Your task to perform on an android device: Open calendar and show me the first week of next month Image 0: 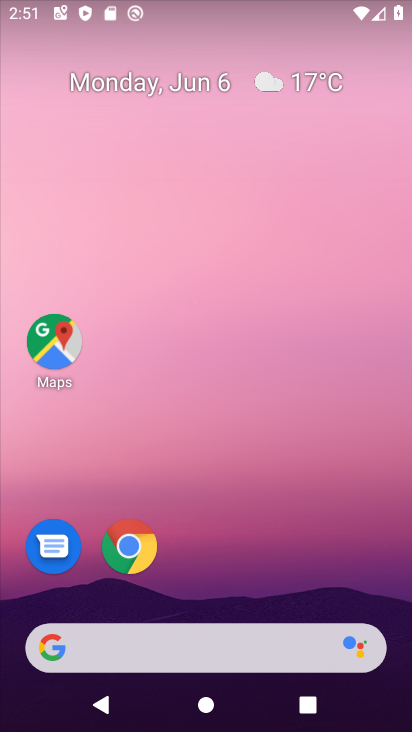
Step 0: drag from (243, 583) to (92, 205)
Your task to perform on an android device: Open calendar and show me the first week of next month Image 1: 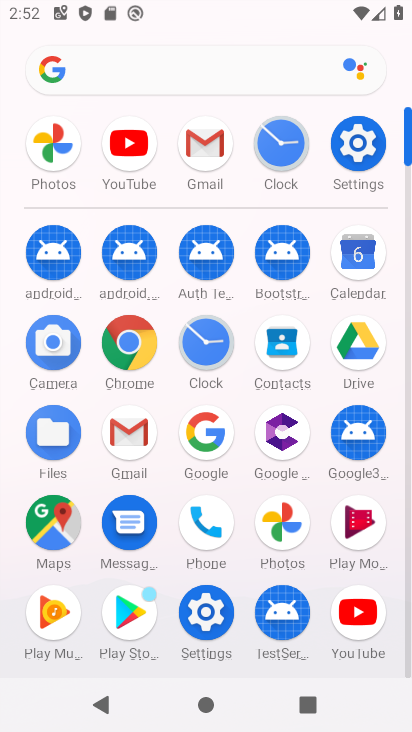
Step 1: click (354, 278)
Your task to perform on an android device: Open calendar and show me the first week of next month Image 2: 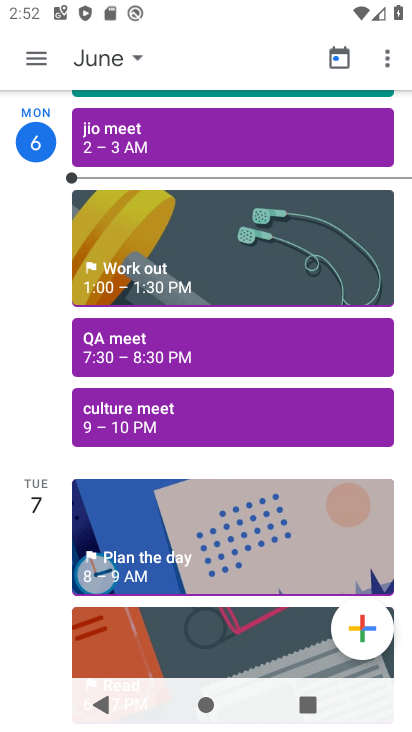
Step 2: task complete